Your task to perform on an android device: change notification settings in the gmail app Image 0: 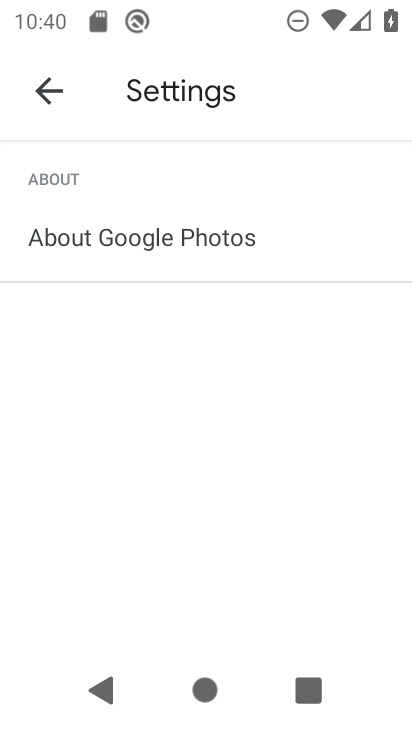
Step 0: press home button
Your task to perform on an android device: change notification settings in the gmail app Image 1: 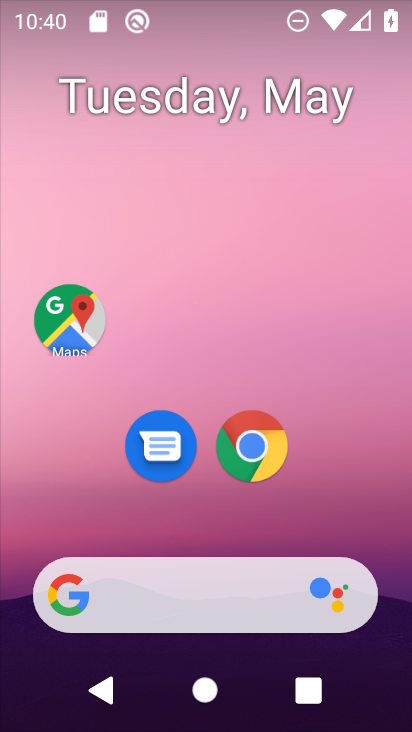
Step 1: drag from (214, 529) to (343, 50)
Your task to perform on an android device: change notification settings in the gmail app Image 2: 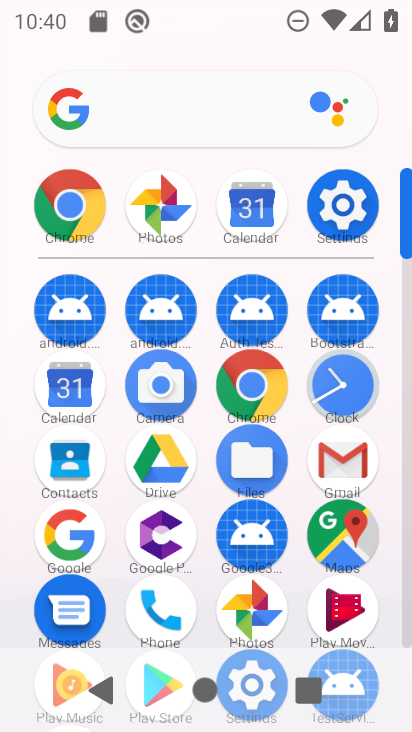
Step 2: click (333, 456)
Your task to perform on an android device: change notification settings in the gmail app Image 3: 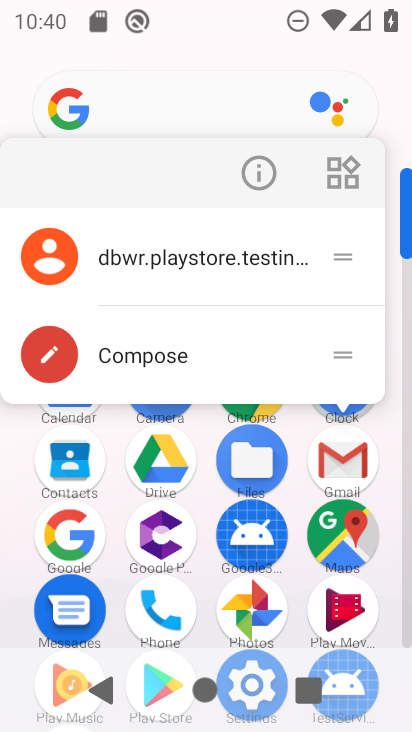
Step 3: click (333, 456)
Your task to perform on an android device: change notification settings in the gmail app Image 4: 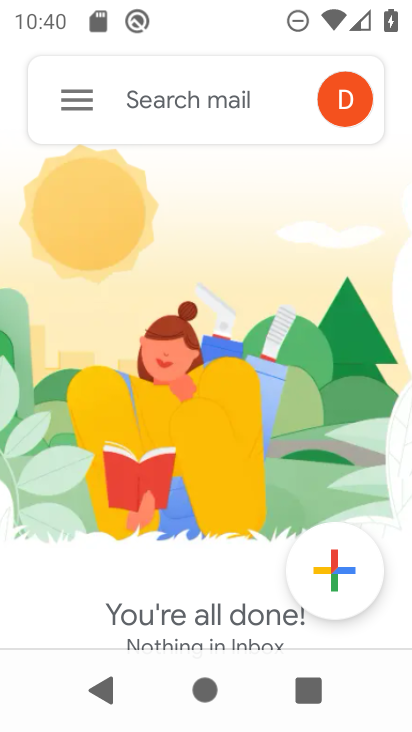
Step 4: click (77, 106)
Your task to perform on an android device: change notification settings in the gmail app Image 5: 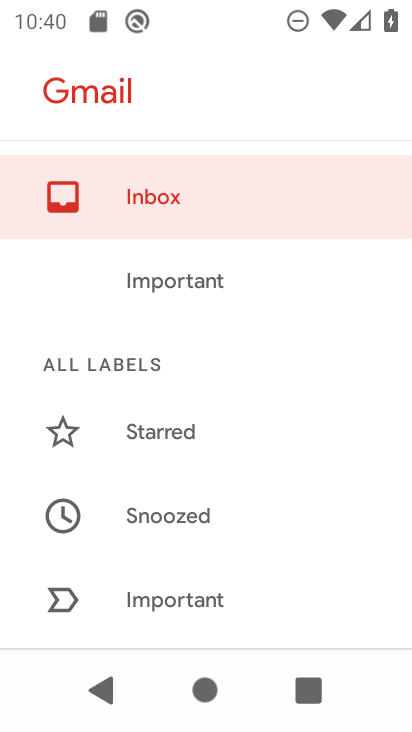
Step 5: drag from (123, 532) to (202, 191)
Your task to perform on an android device: change notification settings in the gmail app Image 6: 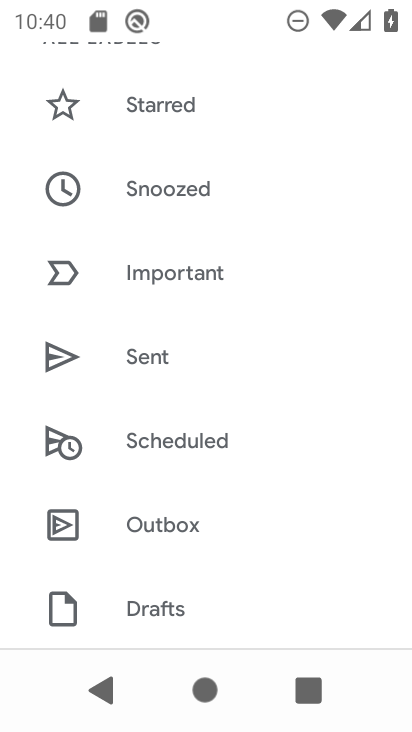
Step 6: drag from (198, 530) to (264, 108)
Your task to perform on an android device: change notification settings in the gmail app Image 7: 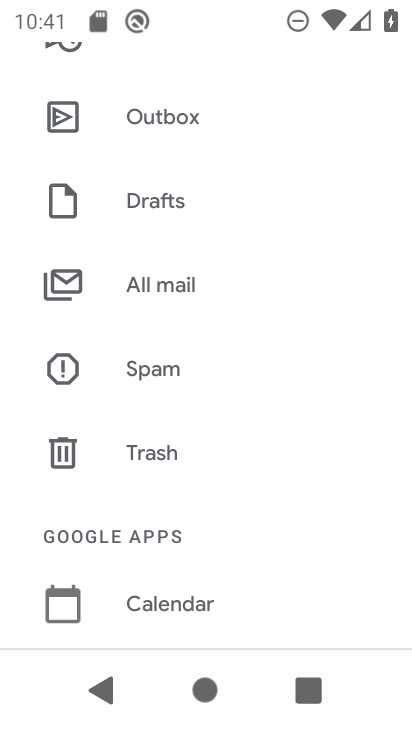
Step 7: drag from (242, 575) to (262, 224)
Your task to perform on an android device: change notification settings in the gmail app Image 8: 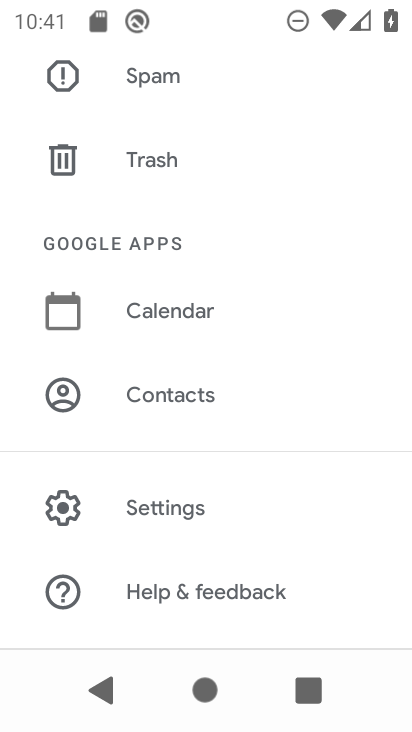
Step 8: click (152, 507)
Your task to perform on an android device: change notification settings in the gmail app Image 9: 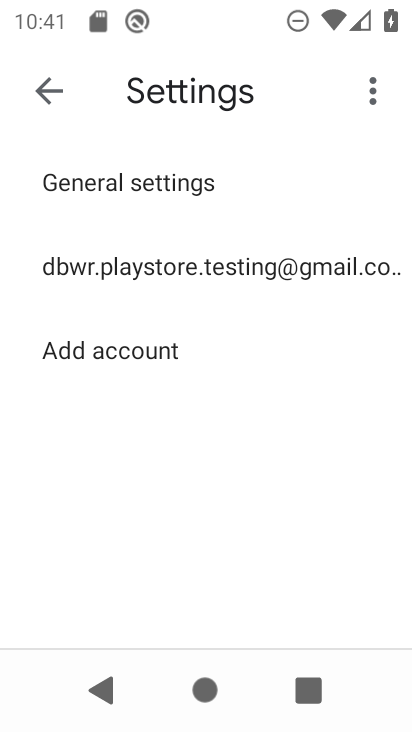
Step 9: click (174, 189)
Your task to perform on an android device: change notification settings in the gmail app Image 10: 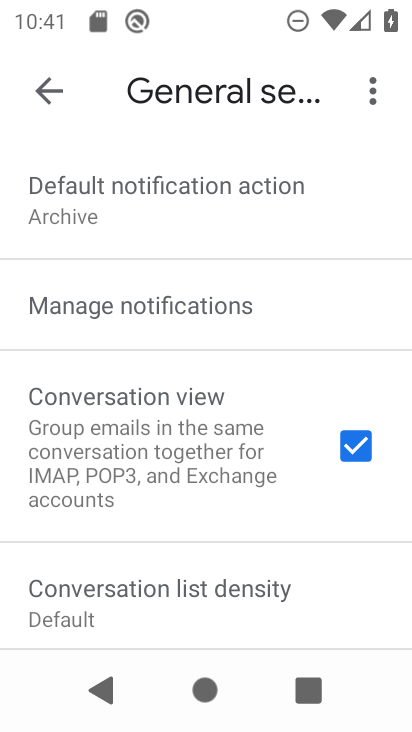
Step 10: click (141, 310)
Your task to perform on an android device: change notification settings in the gmail app Image 11: 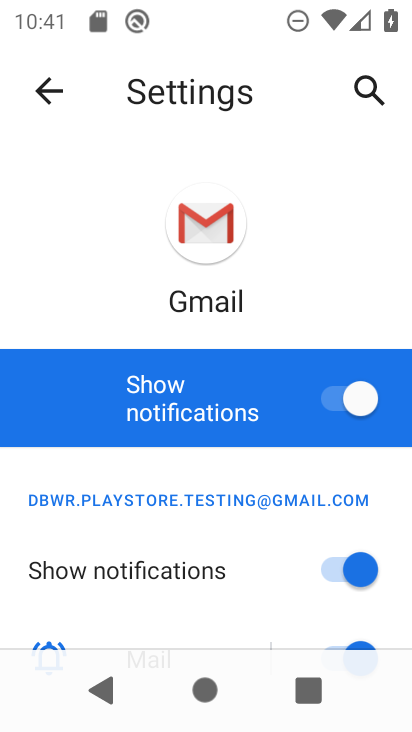
Step 11: click (299, 398)
Your task to perform on an android device: change notification settings in the gmail app Image 12: 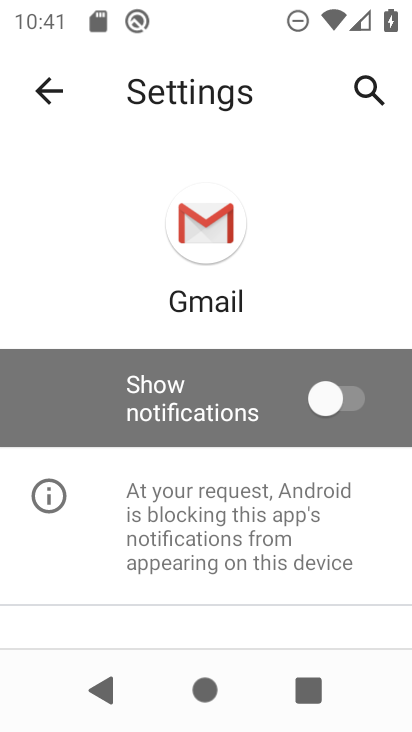
Step 12: task complete